Your task to perform on an android device: Open the map Image 0: 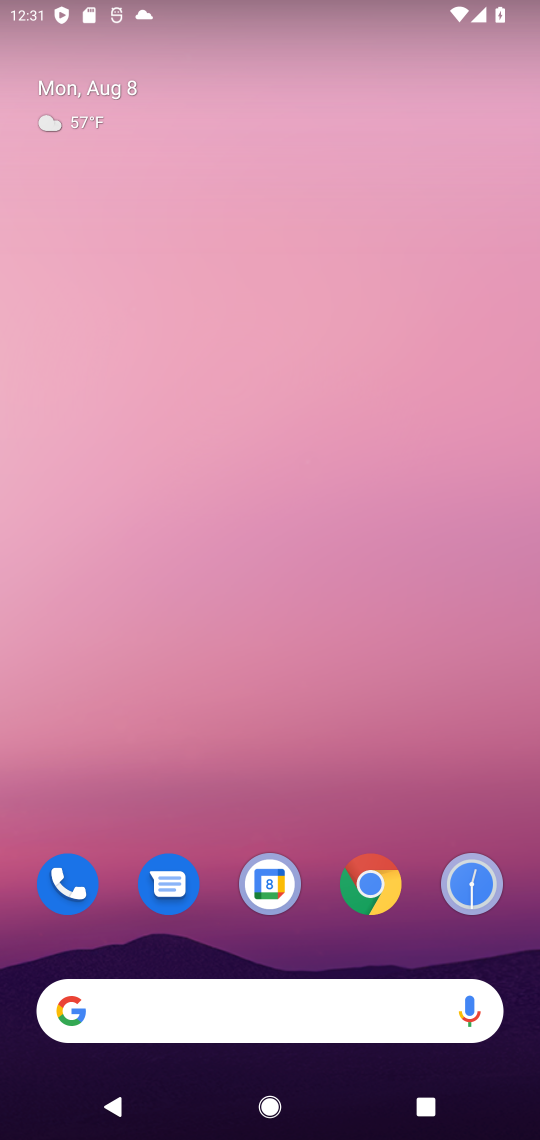
Step 0: drag from (202, 1105) to (356, 317)
Your task to perform on an android device: Open the map Image 1: 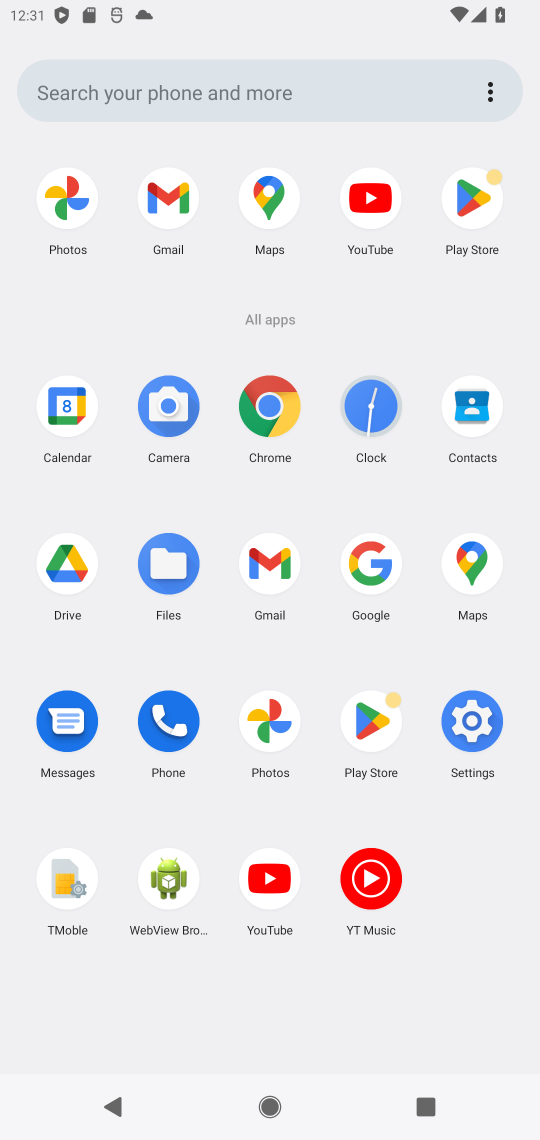
Step 1: click (262, 201)
Your task to perform on an android device: Open the map Image 2: 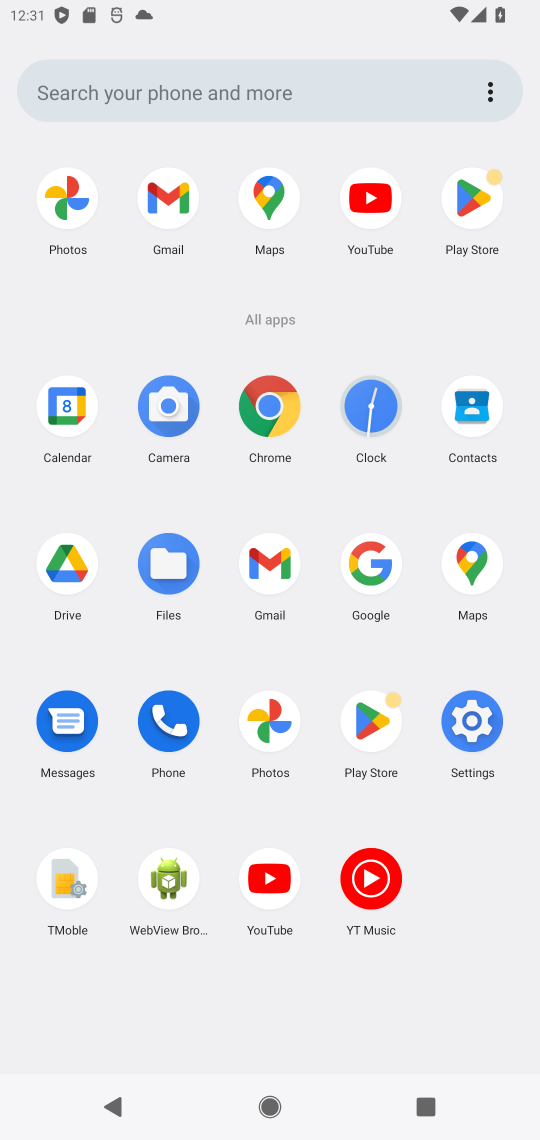
Step 2: click (262, 201)
Your task to perform on an android device: Open the map Image 3: 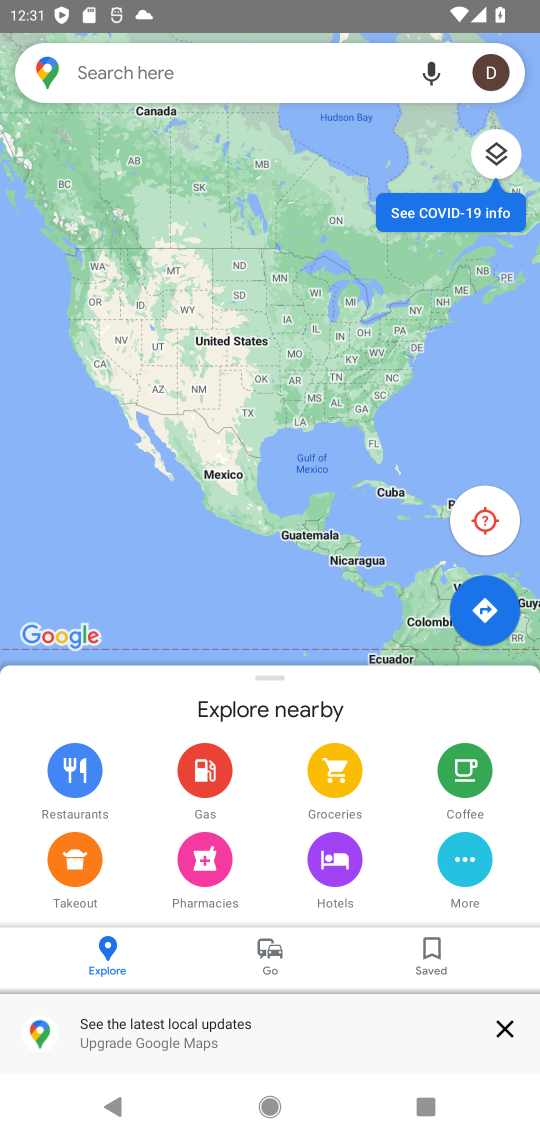
Step 3: task complete